Your task to perform on an android device: set default search engine in the chrome app Image 0: 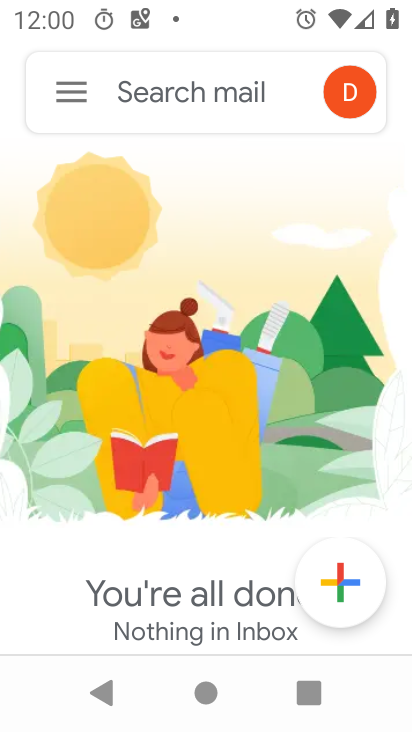
Step 0: press home button
Your task to perform on an android device: set default search engine in the chrome app Image 1: 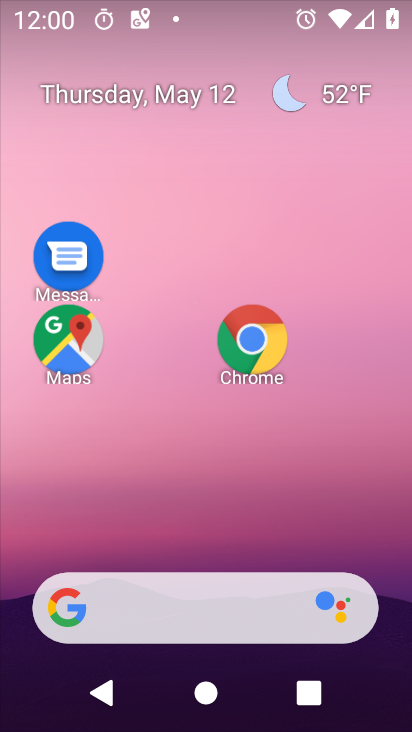
Step 1: click (255, 347)
Your task to perform on an android device: set default search engine in the chrome app Image 2: 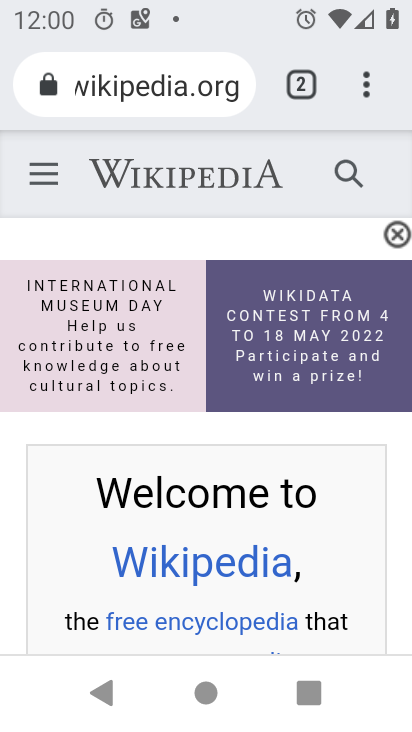
Step 2: click (362, 97)
Your task to perform on an android device: set default search engine in the chrome app Image 3: 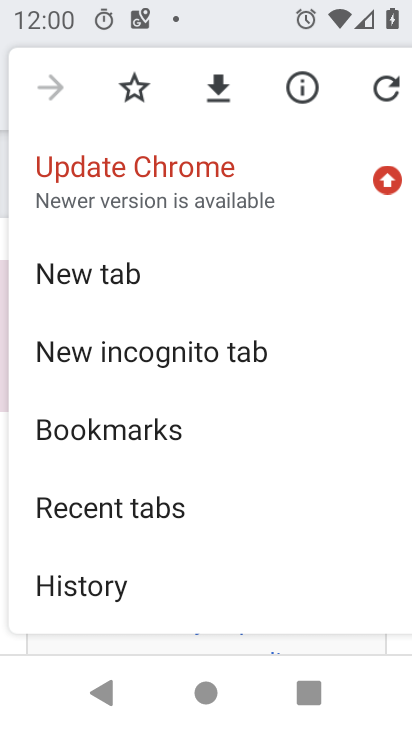
Step 3: drag from (173, 530) to (160, 58)
Your task to perform on an android device: set default search engine in the chrome app Image 4: 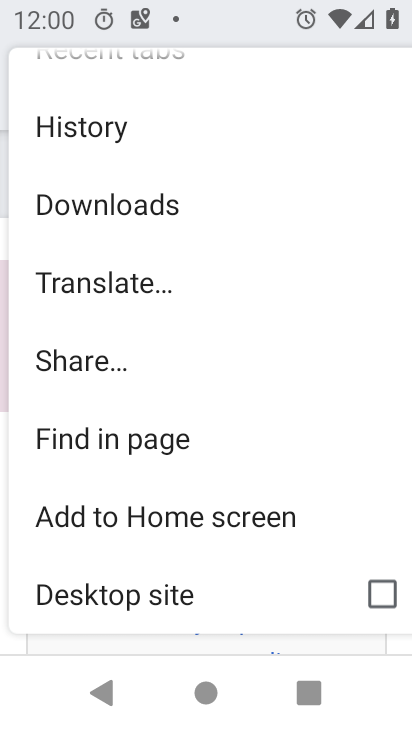
Step 4: drag from (170, 523) to (157, 173)
Your task to perform on an android device: set default search engine in the chrome app Image 5: 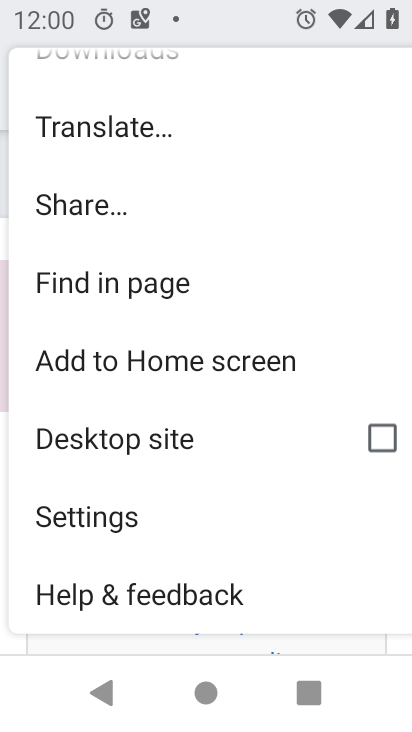
Step 5: click (118, 517)
Your task to perform on an android device: set default search engine in the chrome app Image 6: 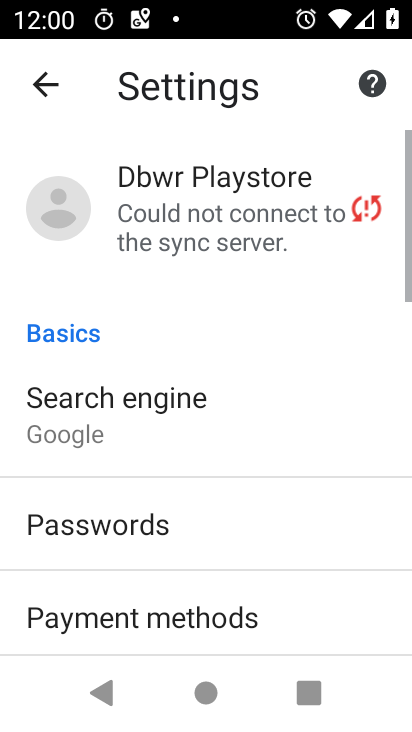
Step 6: drag from (220, 526) to (199, 395)
Your task to perform on an android device: set default search engine in the chrome app Image 7: 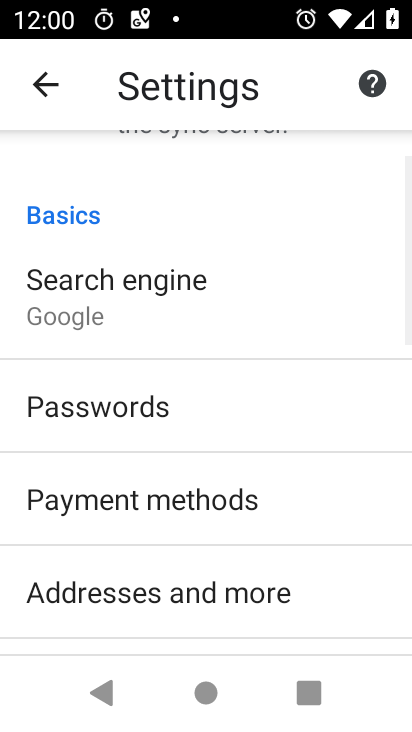
Step 7: click (143, 320)
Your task to perform on an android device: set default search engine in the chrome app Image 8: 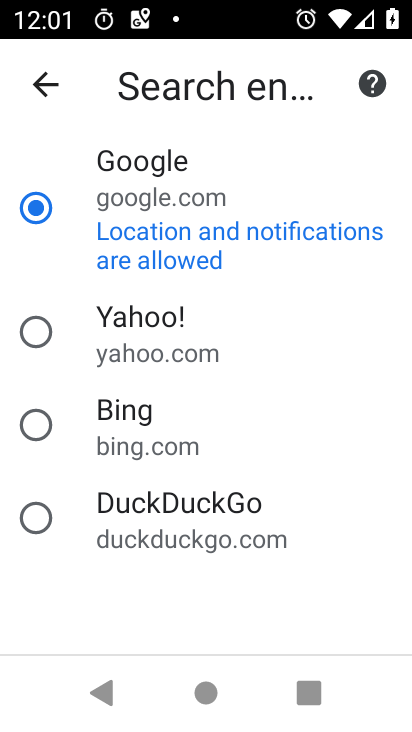
Step 8: task complete